Your task to perform on an android device: turn off sleep mode Image 0: 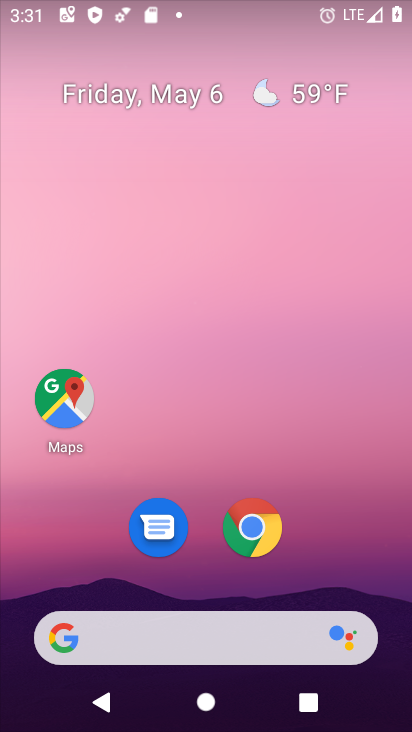
Step 0: drag from (351, 469) to (306, 79)
Your task to perform on an android device: turn off sleep mode Image 1: 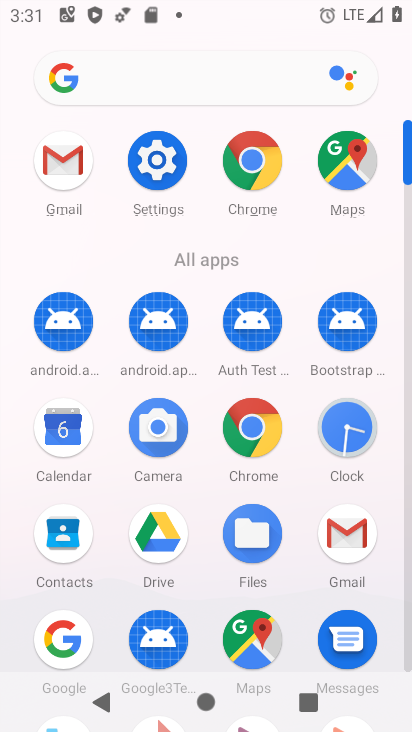
Step 1: click (156, 161)
Your task to perform on an android device: turn off sleep mode Image 2: 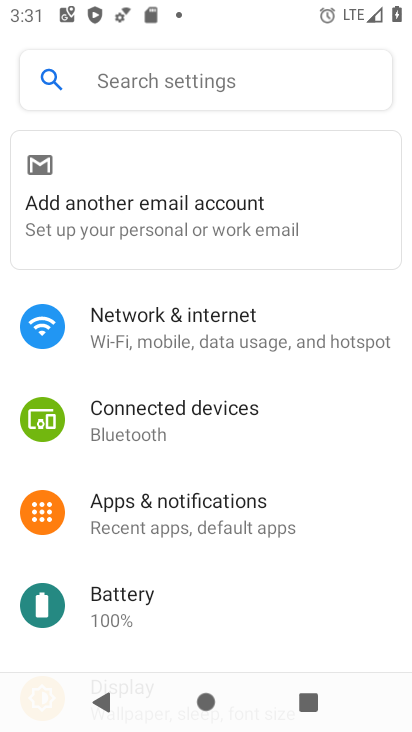
Step 2: drag from (263, 605) to (304, 254)
Your task to perform on an android device: turn off sleep mode Image 3: 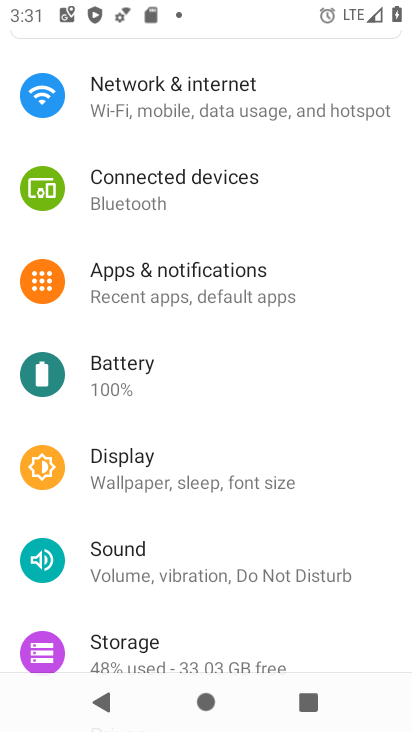
Step 3: click (184, 473)
Your task to perform on an android device: turn off sleep mode Image 4: 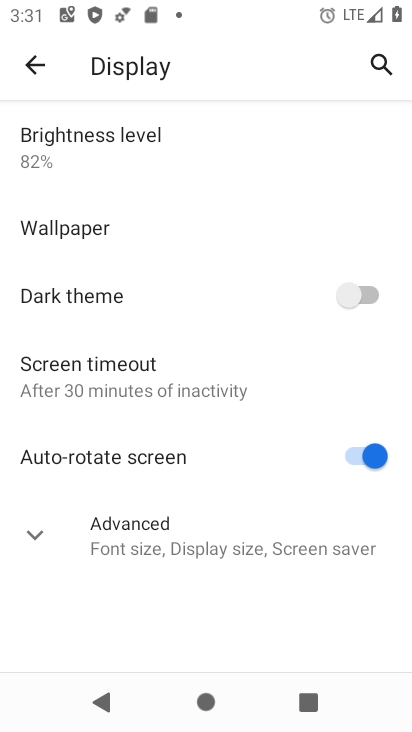
Step 4: click (178, 374)
Your task to perform on an android device: turn off sleep mode Image 5: 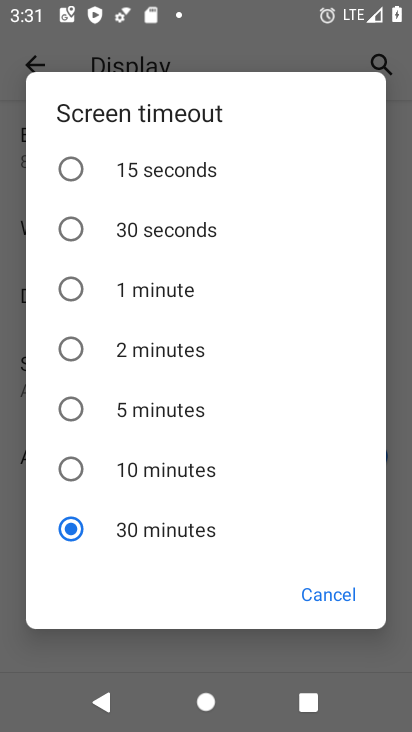
Step 5: task complete